Your task to perform on an android device: turn on bluetooth scan Image 0: 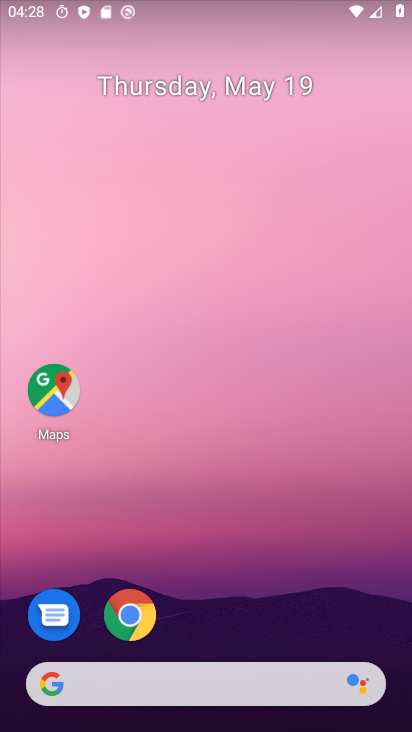
Step 0: drag from (253, 637) to (304, 137)
Your task to perform on an android device: turn on bluetooth scan Image 1: 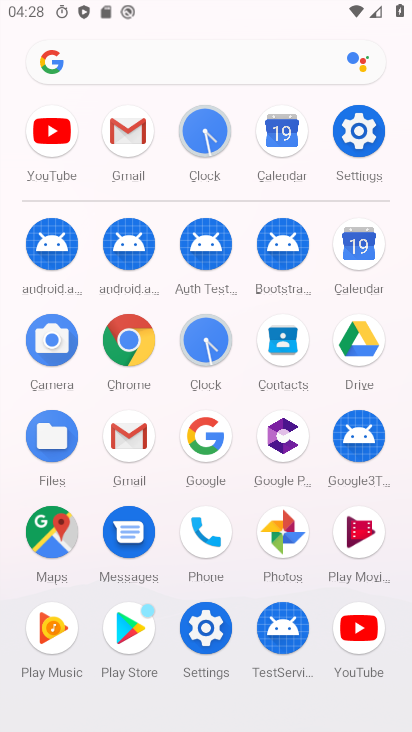
Step 1: click (351, 151)
Your task to perform on an android device: turn on bluetooth scan Image 2: 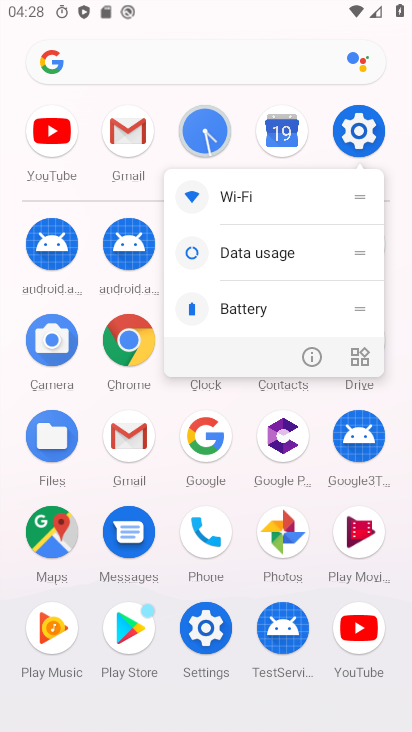
Step 2: click (359, 139)
Your task to perform on an android device: turn on bluetooth scan Image 3: 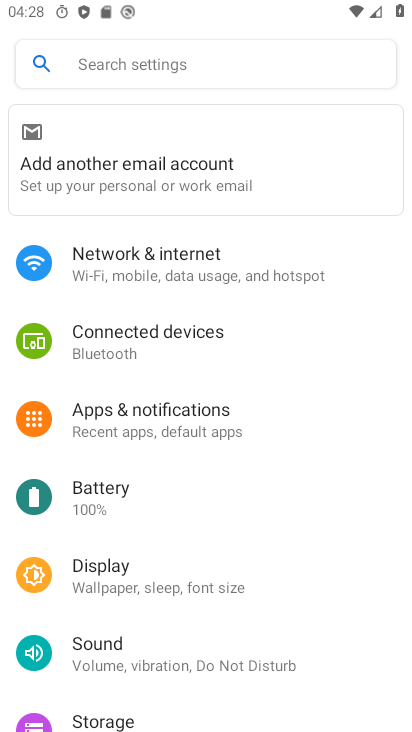
Step 3: drag from (228, 555) to (278, 374)
Your task to perform on an android device: turn on bluetooth scan Image 4: 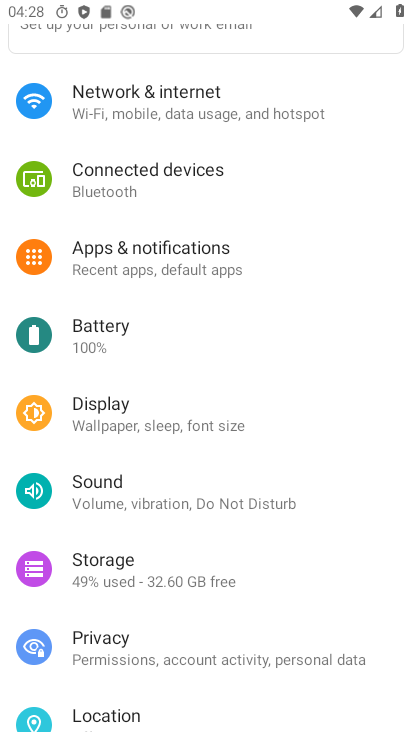
Step 4: drag from (218, 586) to (242, 521)
Your task to perform on an android device: turn on bluetooth scan Image 5: 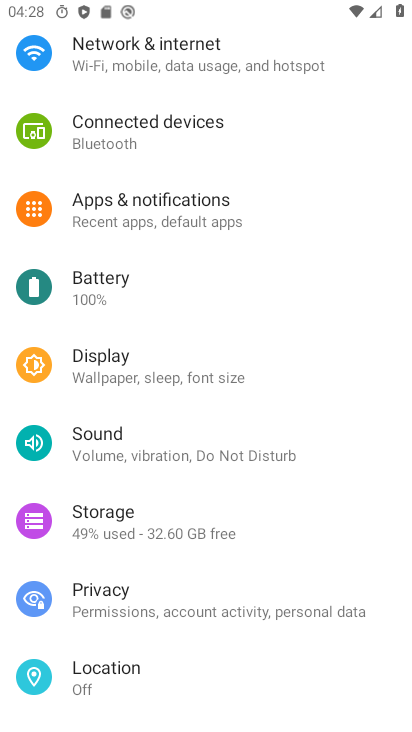
Step 5: click (67, 665)
Your task to perform on an android device: turn on bluetooth scan Image 6: 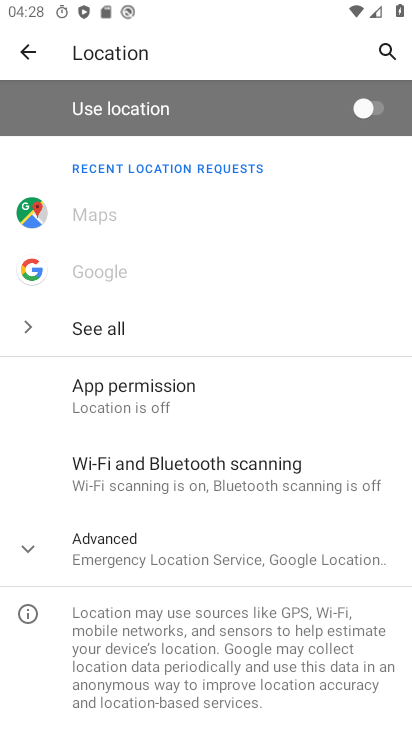
Step 6: click (104, 486)
Your task to perform on an android device: turn on bluetooth scan Image 7: 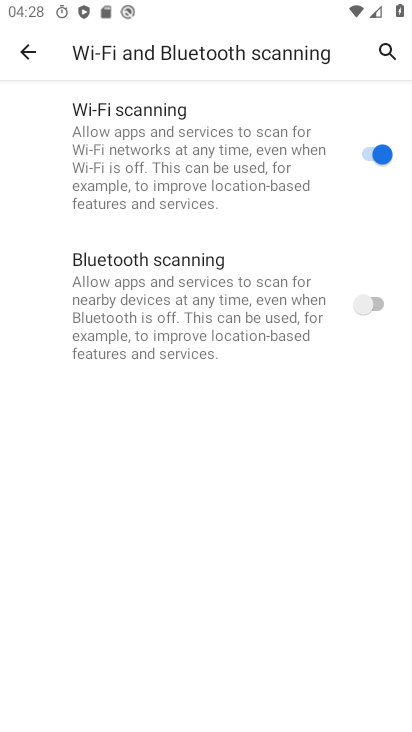
Step 7: click (360, 309)
Your task to perform on an android device: turn on bluetooth scan Image 8: 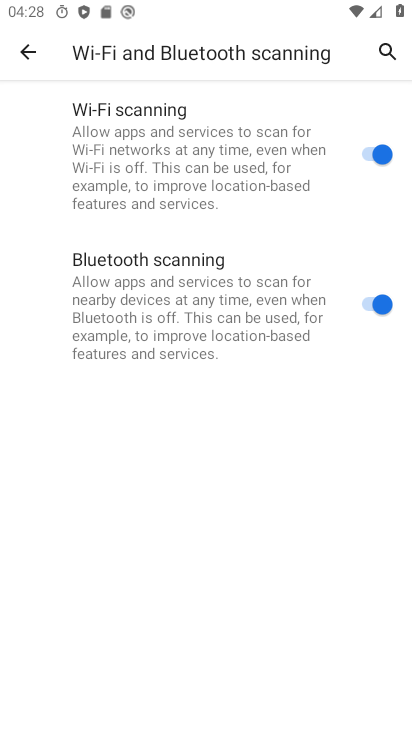
Step 8: task complete